Your task to perform on an android device: Open Amazon Image 0: 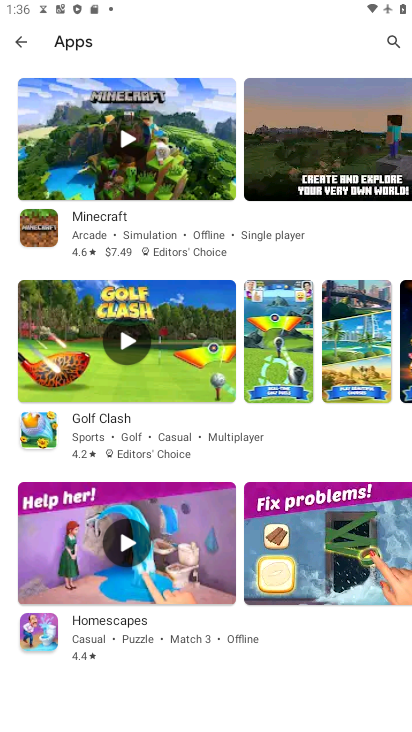
Step 0: press home button
Your task to perform on an android device: Open Amazon Image 1: 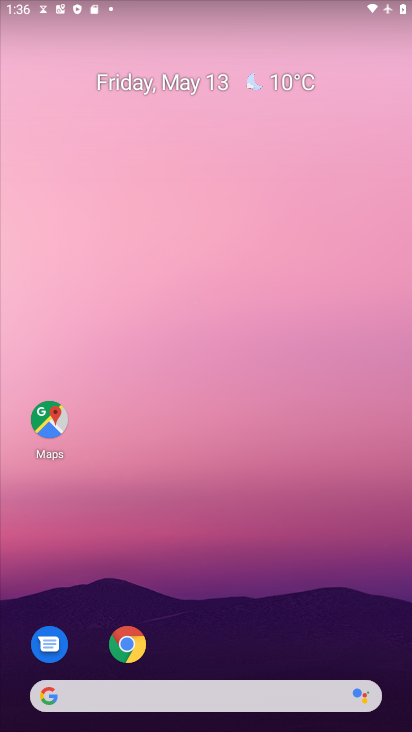
Step 1: click (128, 646)
Your task to perform on an android device: Open Amazon Image 2: 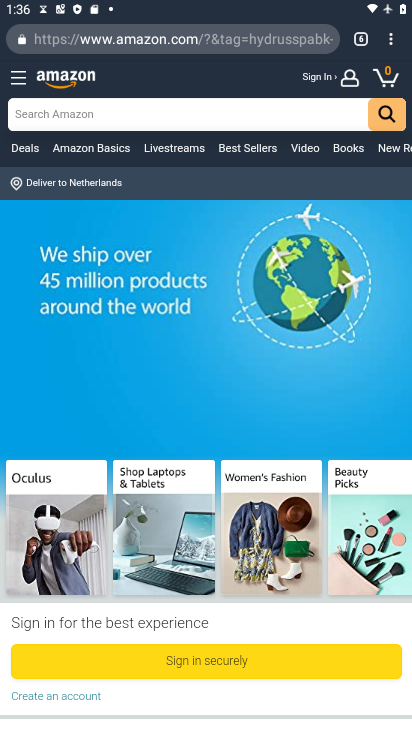
Step 2: click (392, 45)
Your task to perform on an android device: Open Amazon Image 3: 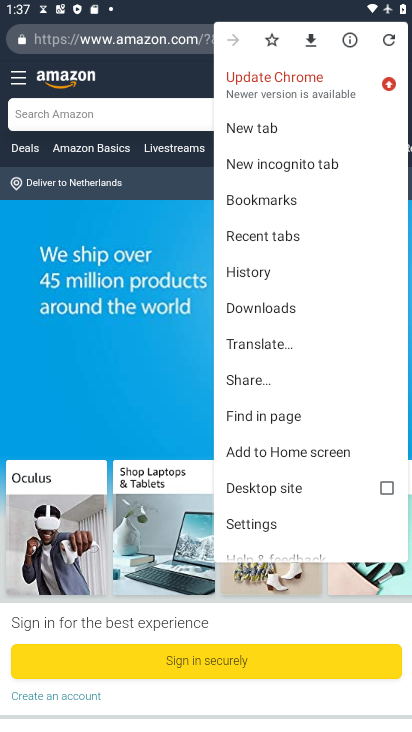
Step 3: click (259, 125)
Your task to perform on an android device: Open Amazon Image 4: 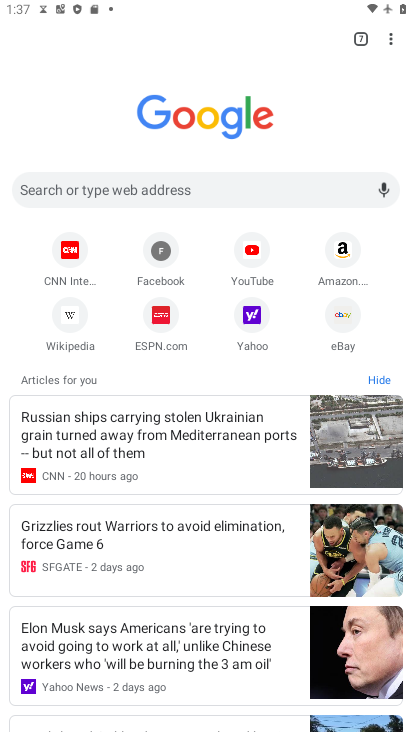
Step 4: click (219, 187)
Your task to perform on an android device: Open Amazon Image 5: 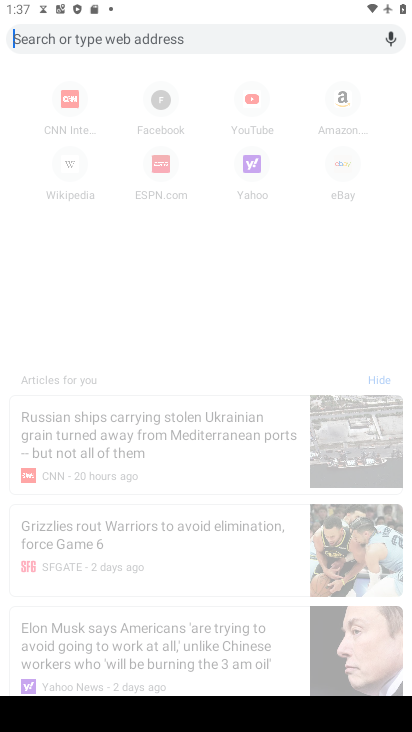
Step 5: type "Amazon"
Your task to perform on an android device: Open Amazon Image 6: 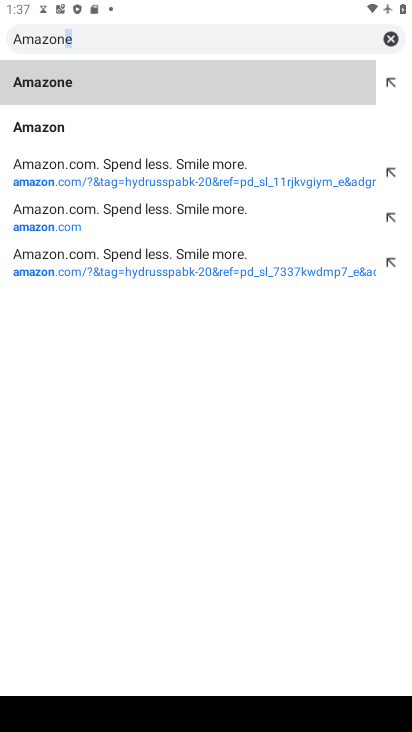
Step 6: click (49, 84)
Your task to perform on an android device: Open Amazon Image 7: 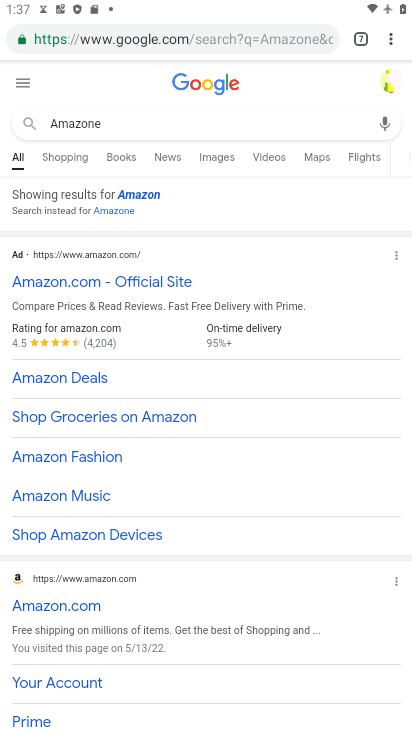
Step 7: click (65, 279)
Your task to perform on an android device: Open Amazon Image 8: 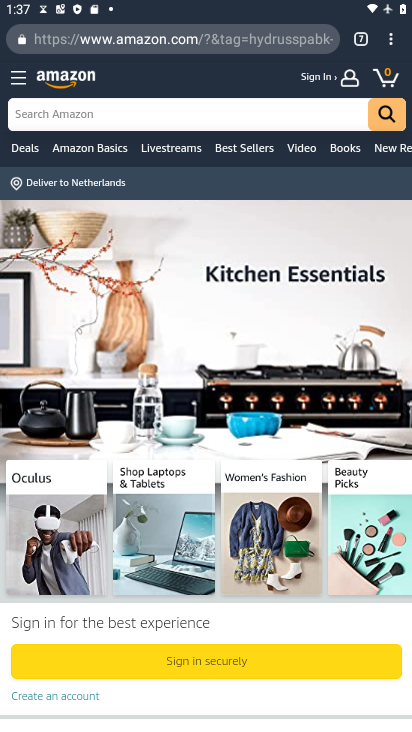
Step 8: task complete